Your task to perform on an android device: Open the phone app and click the voicemail tab. Image 0: 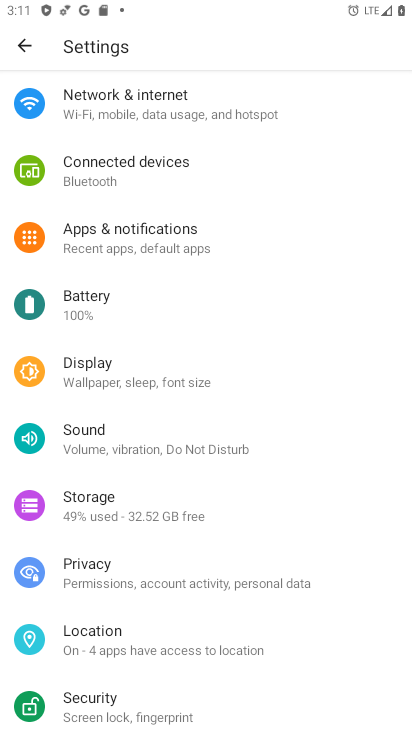
Step 0: press home button
Your task to perform on an android device: Open the phone app and click the voicemail tab. Image 1: 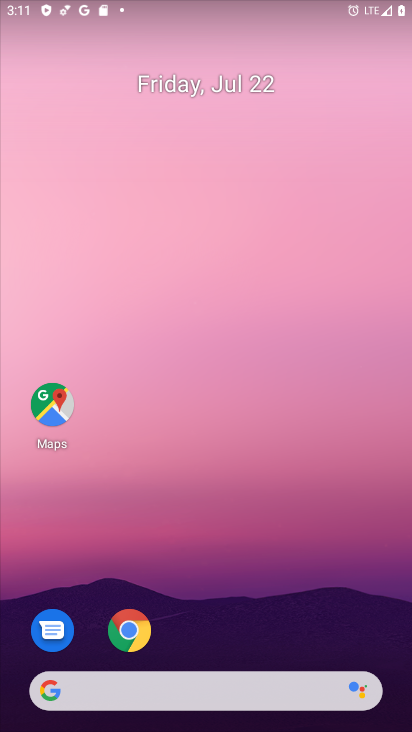
Step 1: drag from (203, 710) to (169, 283)
Your task to perform on an android device: Open the phone app and click the voicemail tab. Image 2: 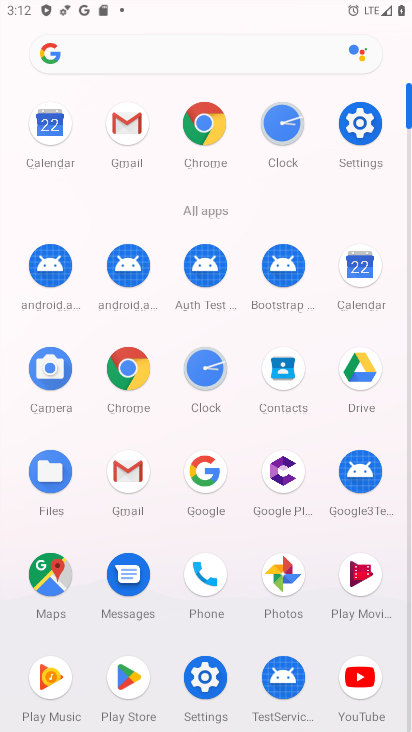
Step 2: click (217, 573)
Your task to perform on an android device: Open the phone app and click the voicemail tab. Image 3: 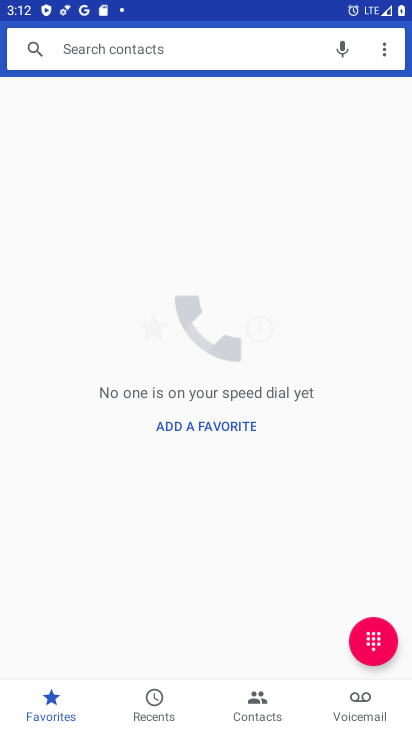
Step 3: click (340, 693)
Your task to perform on an android device: Open the phone app and click the voicemail tab. Image 4: 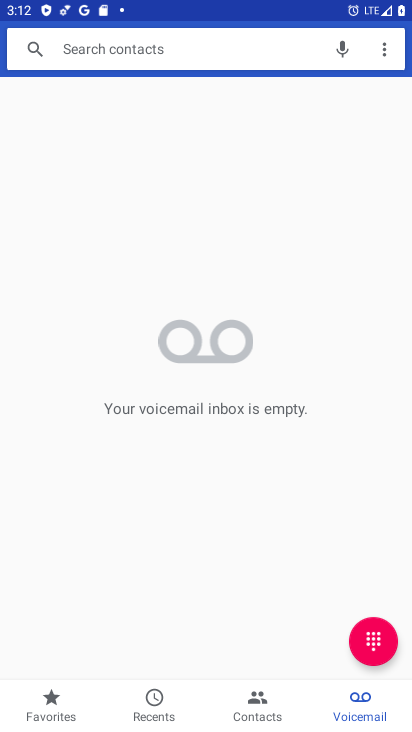
Step 4: task complete